Your task to perform on an android device: Search for a home improvement project you can do. Image 0: 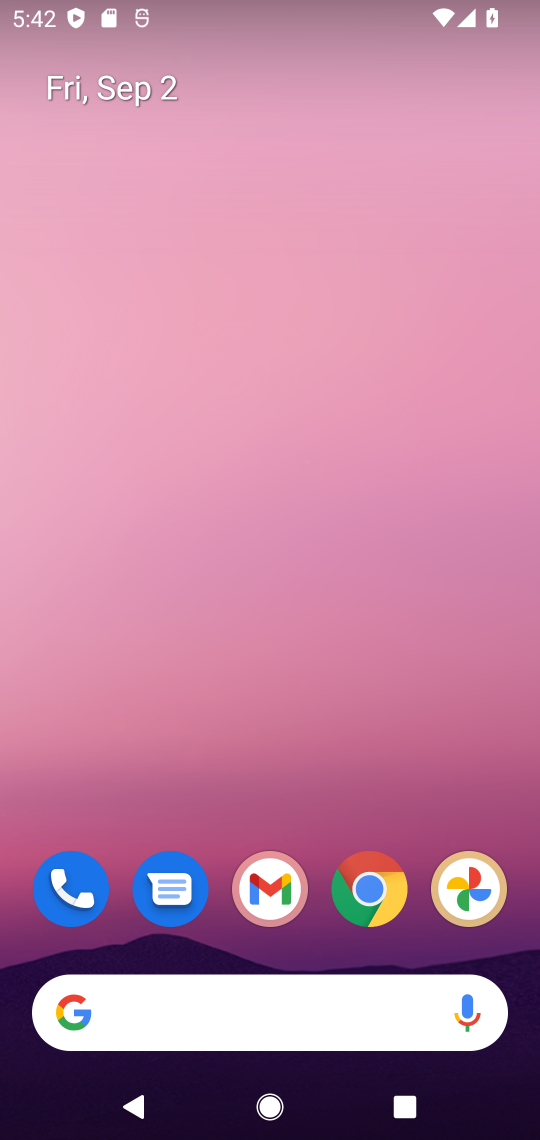
Step 0: click (302, 987)
Your task to perform on an android device: Search for a home improvement project you can do. Image 1: 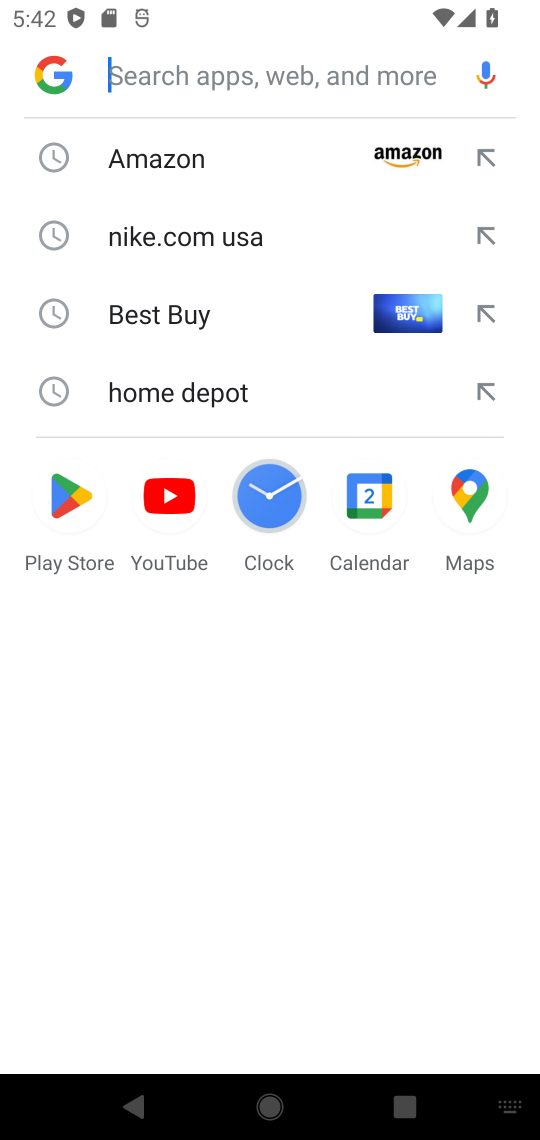
Step 1: click (532, 1134)
Your task to perform on an android device: Search for a home improvement project you can do. Image 2: 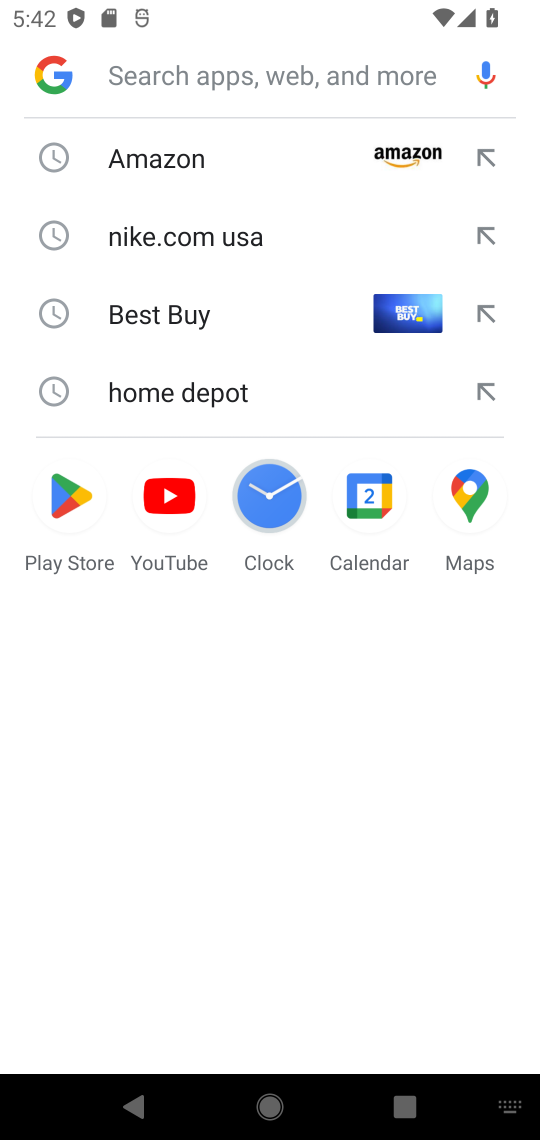
Step 2: type "home improvement project you can do"
Your task to perform on an android device: Search for a home improvement project you can do. Image 3: 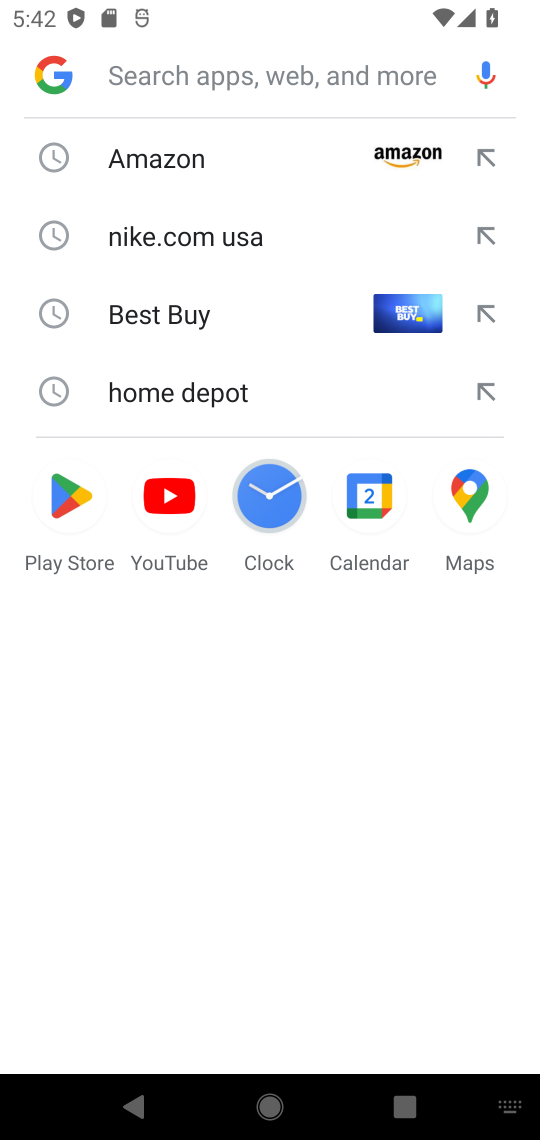
Step 3: click (488, 1060)
Your task to perform on an android device: Search for a home improvement project you can do. Image 4: 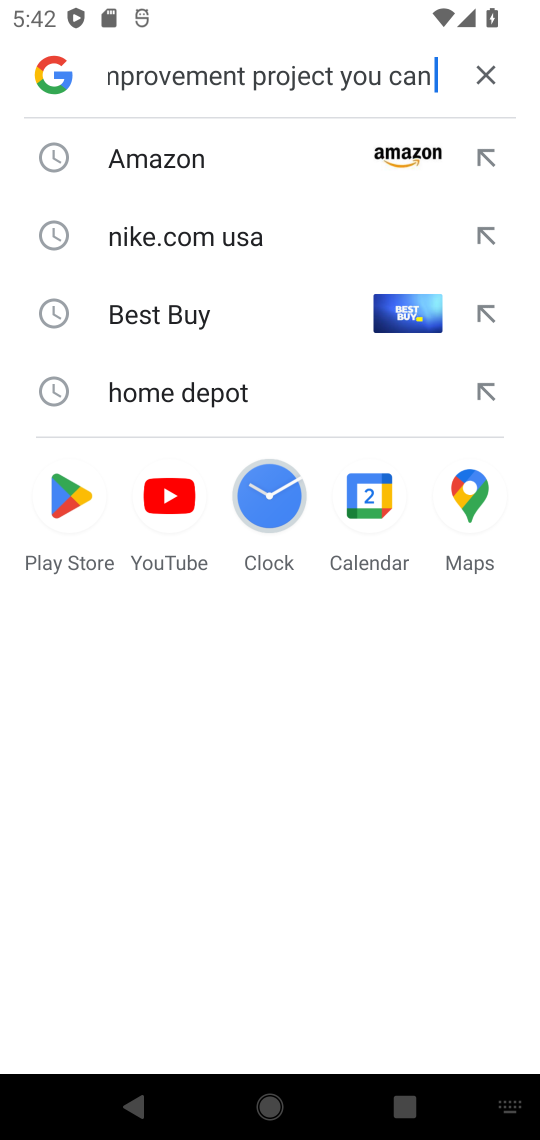
Step 4: type ""
Your task to perform on an android device: Search for a home improvement project you can do. Image 5: 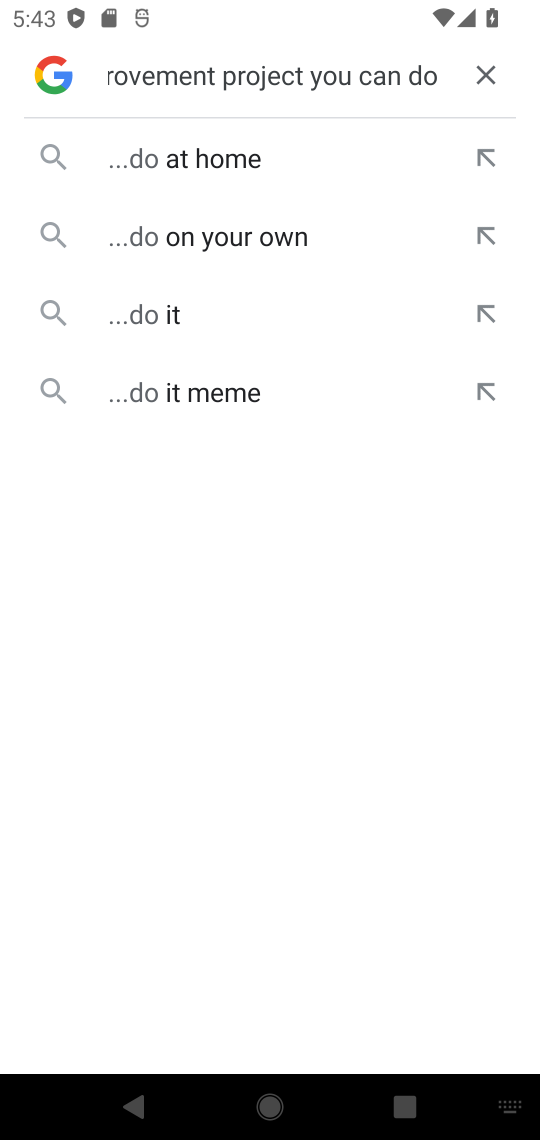
Step 5: click (305, 164)
Your task to perform on an android device: Search for a home improvement project you can do. Image 6: 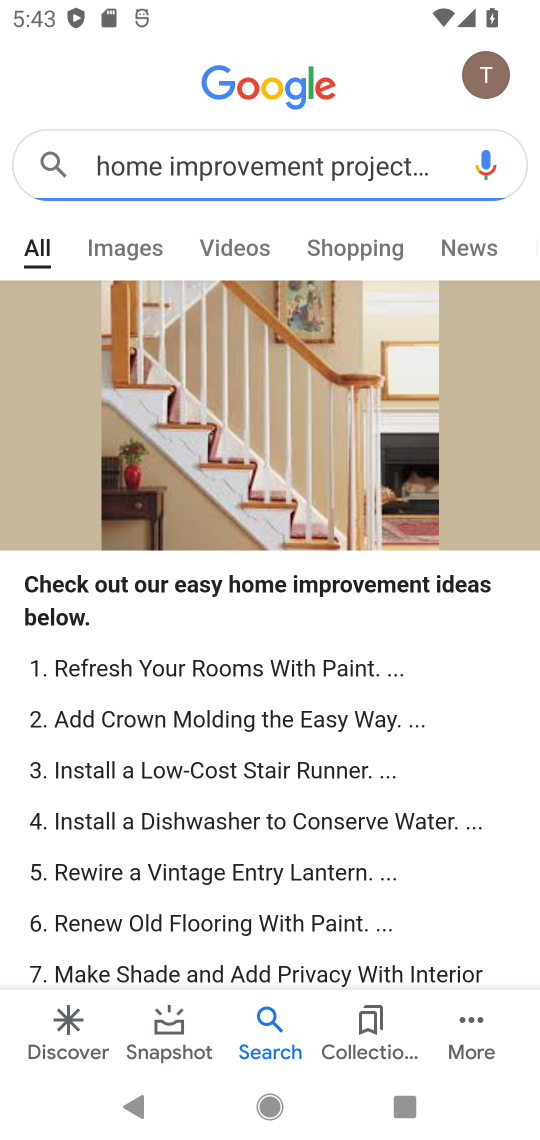
Step 6: task complete